Your task to perform on an android device: toggle notifications settings in the gmail app Image 0: 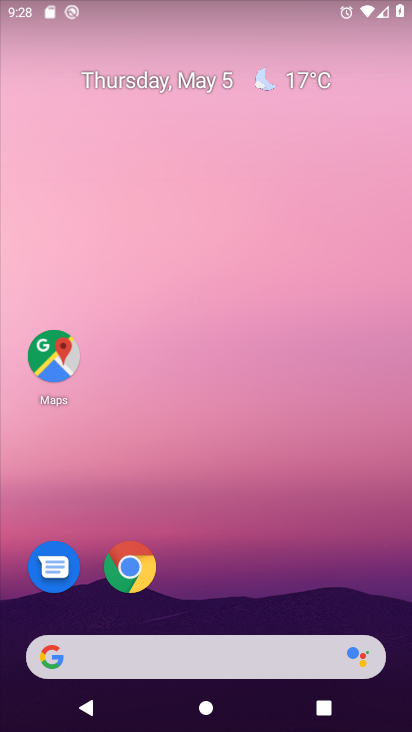
Step 0: drag from (255, 561) to (260, 8)
Your task to perform on an android device: toggle notifications settings in the gmail app Image 1: 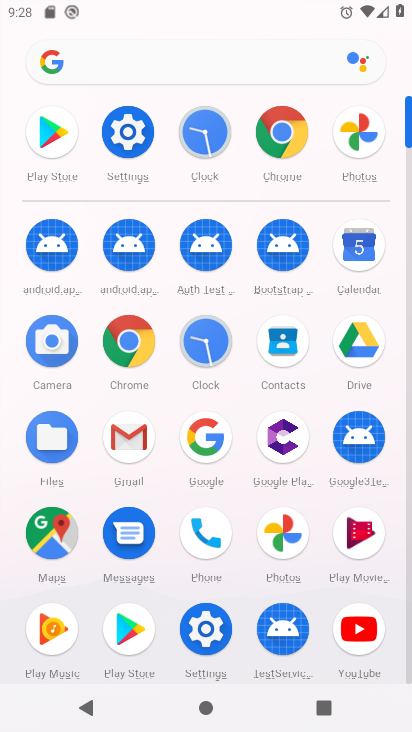
Step 1: click (129, 428)
Your task to perform on an android device: toggle notifications settings in the gmail app Image 2: 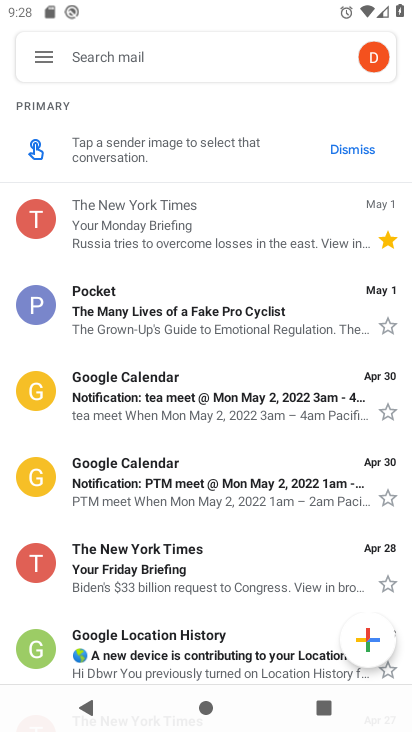
Step 2: click (46, 54)
Your task to perform on an android device: toggle notifications settings in the gmail app Image 3: 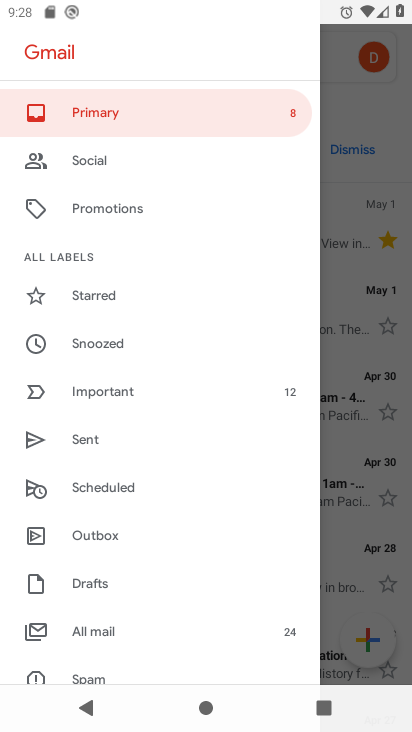
Step 3: drag from (153, 550) to (155, 282)
Your task to perform on an android device: toggle notifications settings in the gmail app Image 4: 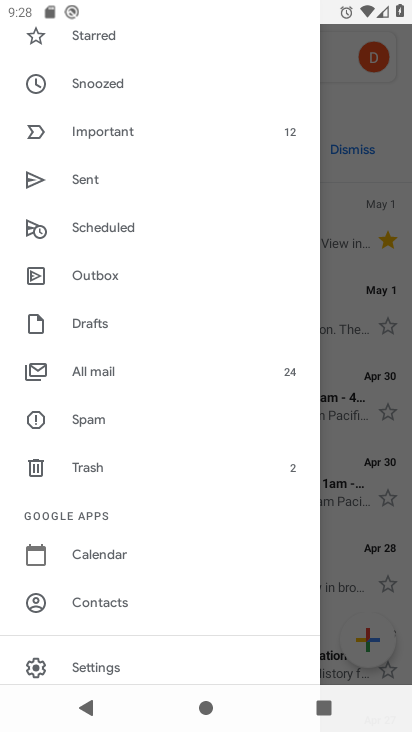
Step 4: click (122, 660)
Your task to perform on an android device: toggle notifications settings in the gmail app Image 5: 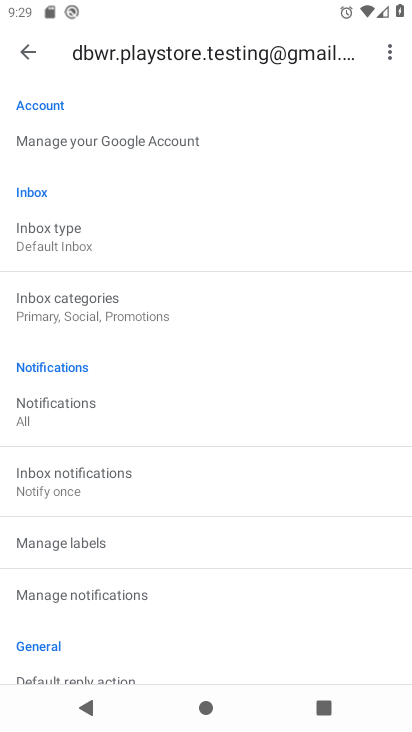
Step 5: click (150, 602)
Your task to perform on an android device: toggle notifications settings in the gmail app Image 6: 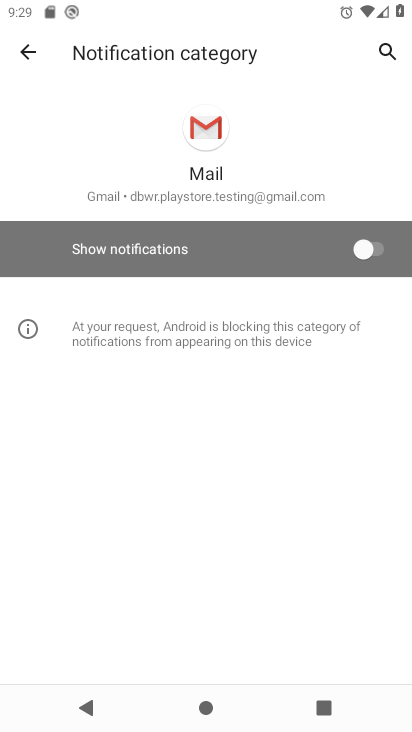
Step 6: click (377, 254)
Your task to perform on an android device: toggle notifications settings in the gmail app Image 7: 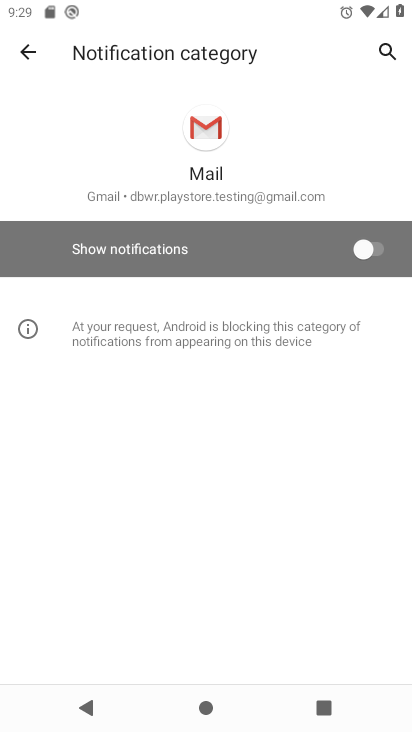
Step 7: click (371, 253)
Your task to perform on an android device: toggle notifications settings in the gmail app Image 8: 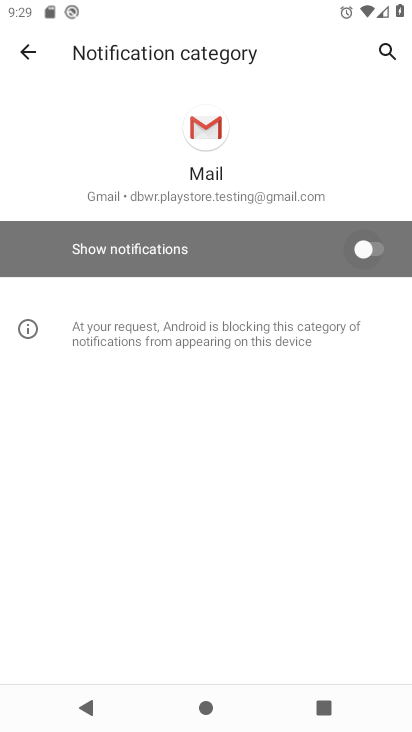
Step 8: click (371, 251)
Your task to perform on an android device: toggle notifications settings in the gmail app Image 9: 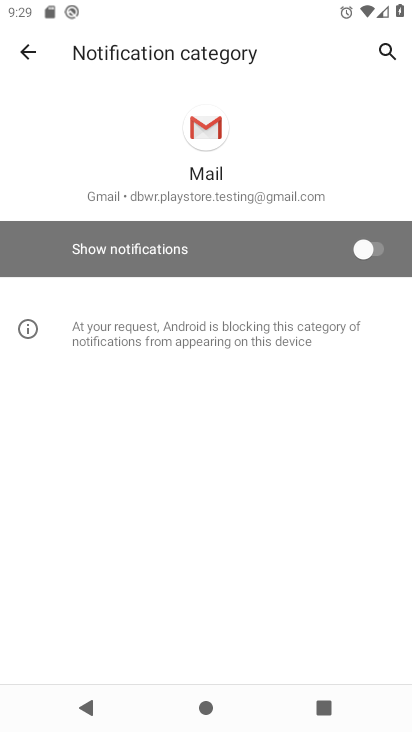
Step 9: click (363, 250)
Your task to perform on an android device: toggle notifications settings in the gmail app Image 10: 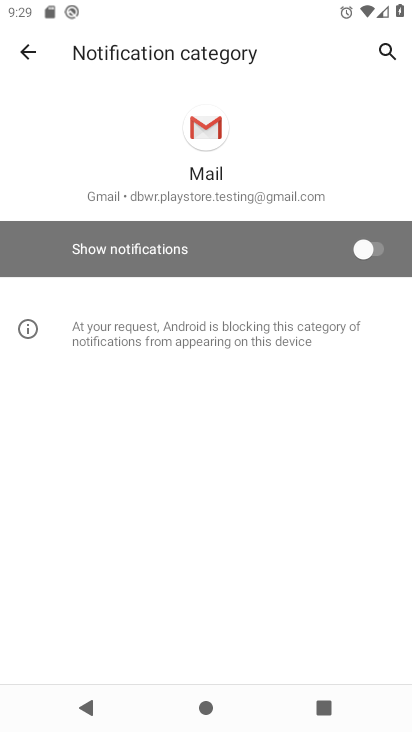
Step 10: click (26, 52)
Your task to perform on an android device: toggle notifications settings in the gmail app Image 11: 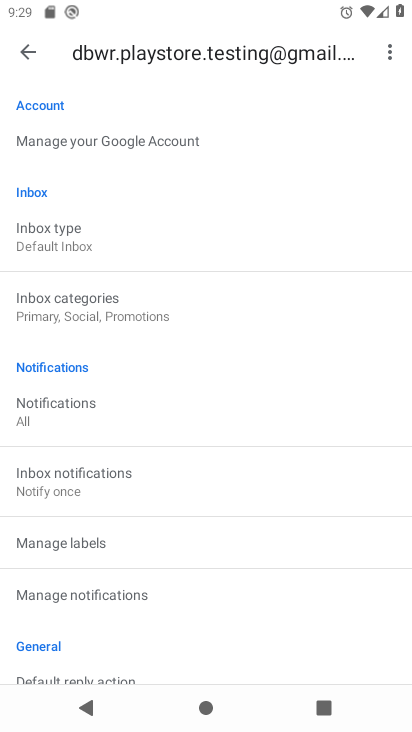
Step 11: click (27, 50)
Your task to perform on an android device: toggle notifications settings in the gmail app Image 12: 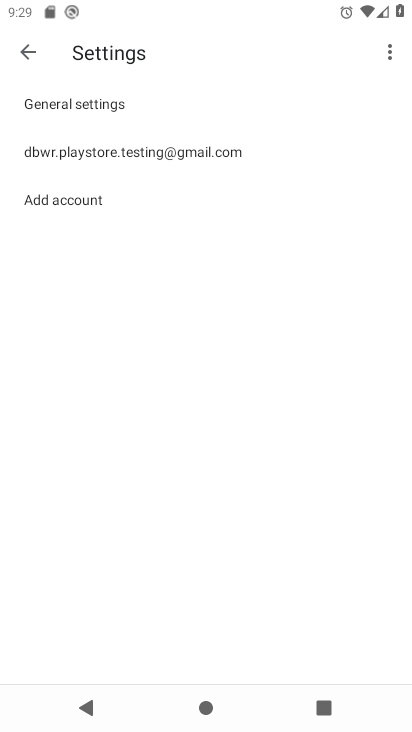
Step 12: click (60, 101)
Your task to perform on an android device: toggle notifications settings in the gmail app Image 13: 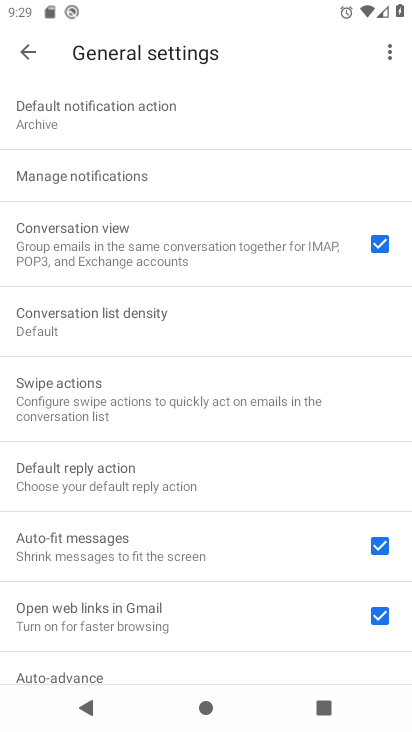
Step 13: click (154, 169)
Your task to perform on an android device: toggle notifications settings in the gmail app Image 14: 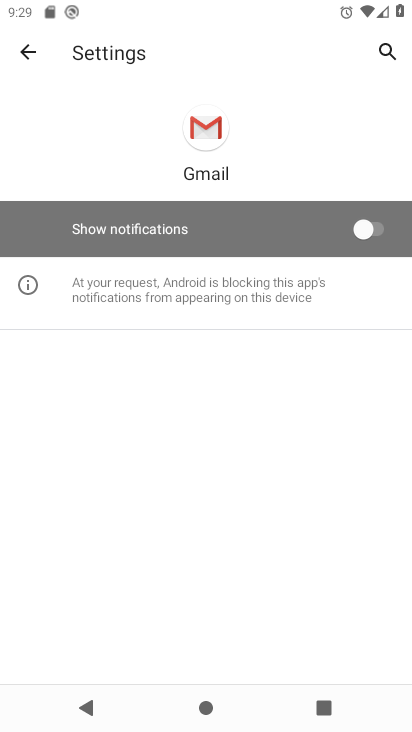
Step 14: click (379, 239)
Your task to perform on an android device: toggle notifications settings in the gmail app Image 15: 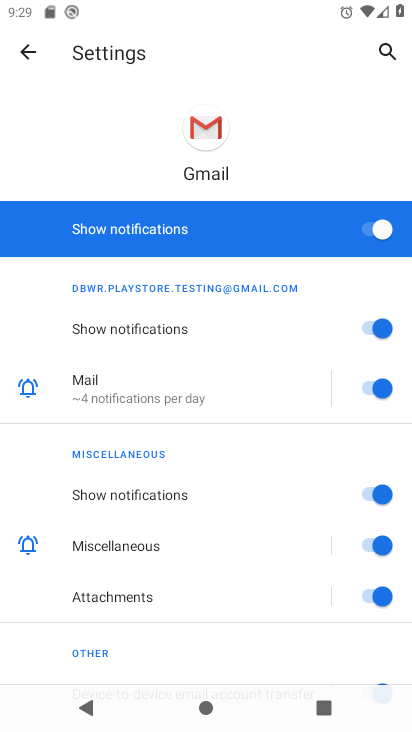
Step 15: task complete